Your task to perform on an android device: Open settings on Google Maps Image 0: 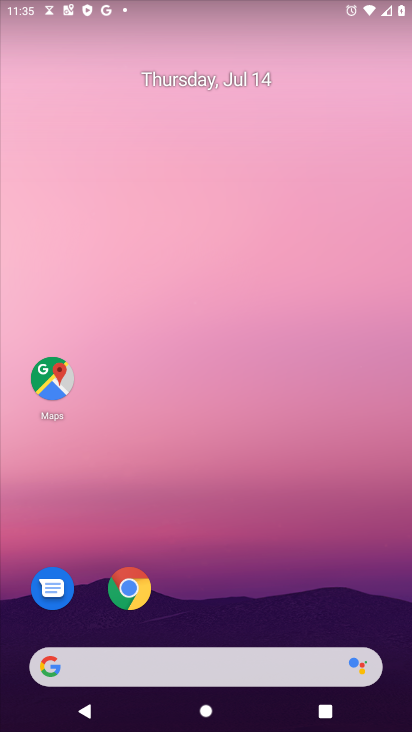
Step 0: press home button
Your task to perform on an android device: Open settings on Google Maps Image 1: 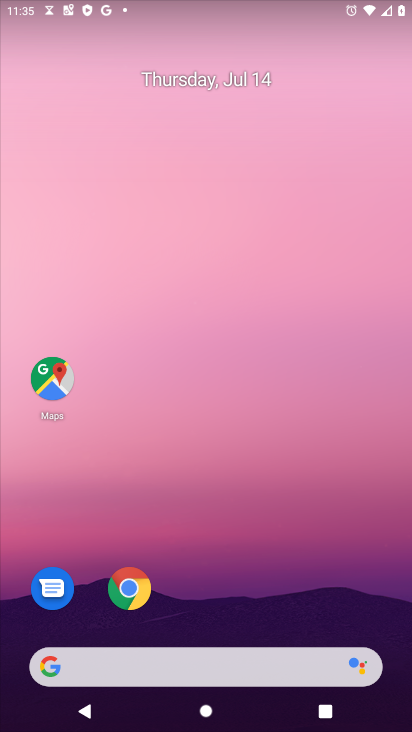
Step 1: click (52, 384)
Your task to perform on an android device: Open settings on Google Maps Image 2: 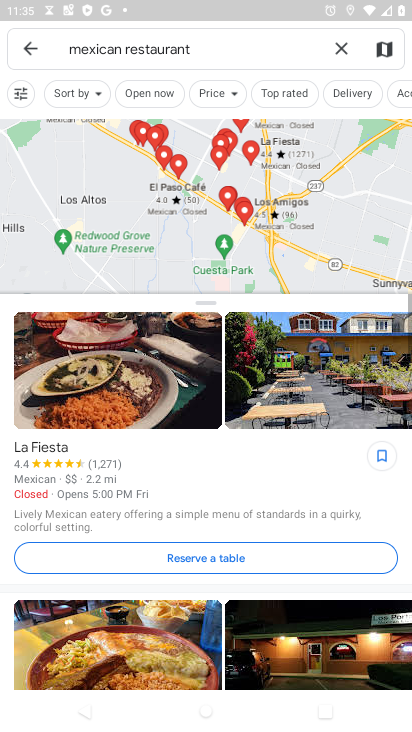
Step 2: click (28, 50)
Your task to perform on an android device: Open settings on Google Maps Image 3: 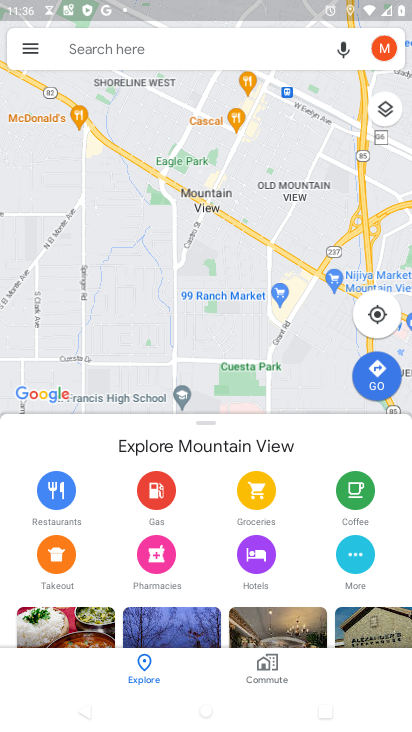
Step 3: task complete